Your task to perform on an android device: allow notifications from all sites in the chrome app Image 0: 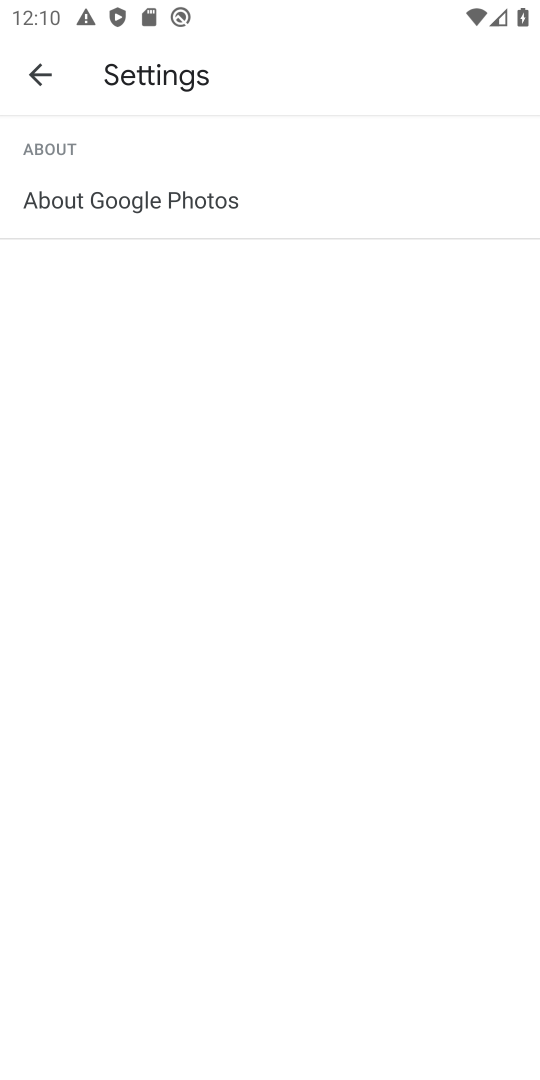
Step 0: press home button
Your task to perform on an android device: allow notifications from all sites in the chrome app Image 1: 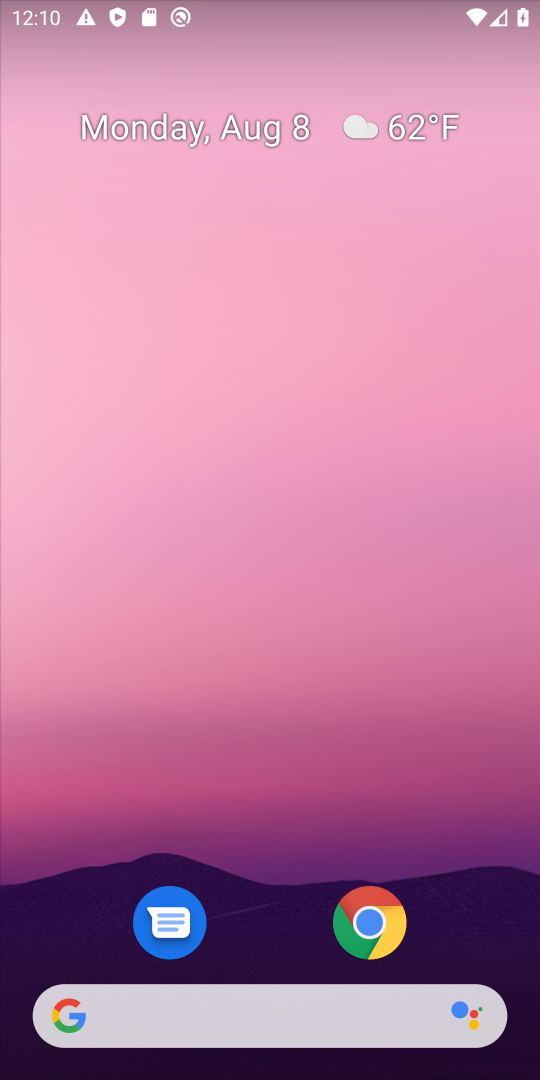
Step 1: click (383, 941)
Your task to perform on an android device: allow notifications from all sites in the chrome app Image 2: 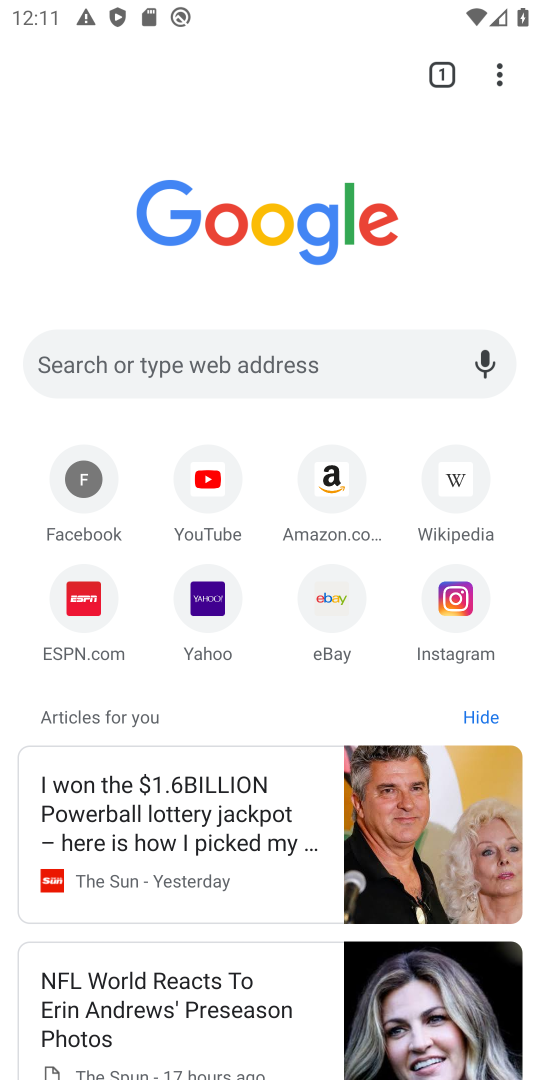
Step 2: click (496, 72)
Your task to perform on an android device: allow notifications from all sites in the chrome app Image 3: 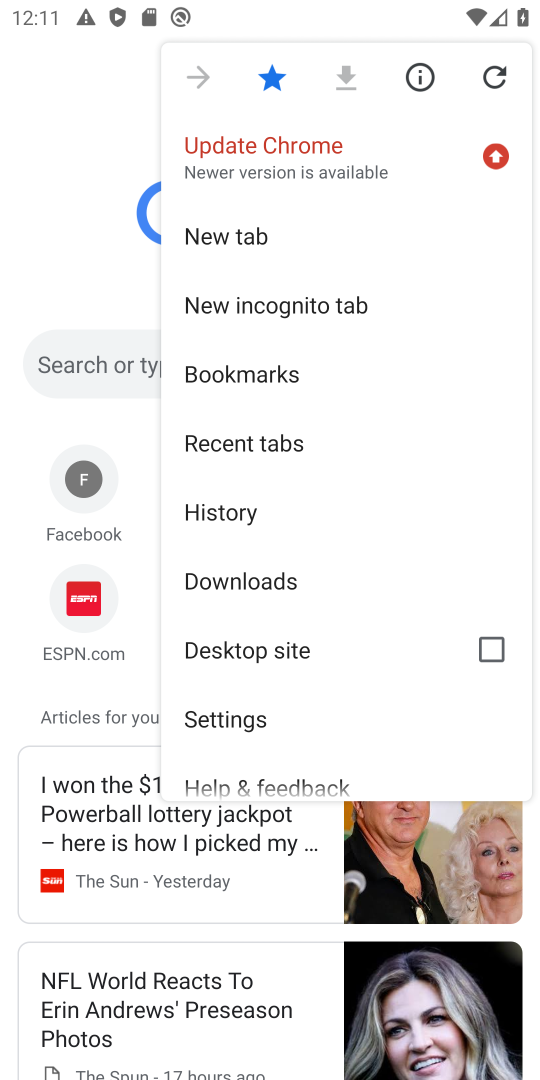
Step 3: click (309, 705)
Your task to perform on an android device: allow notifications from all sites in the chrome app Image 4: 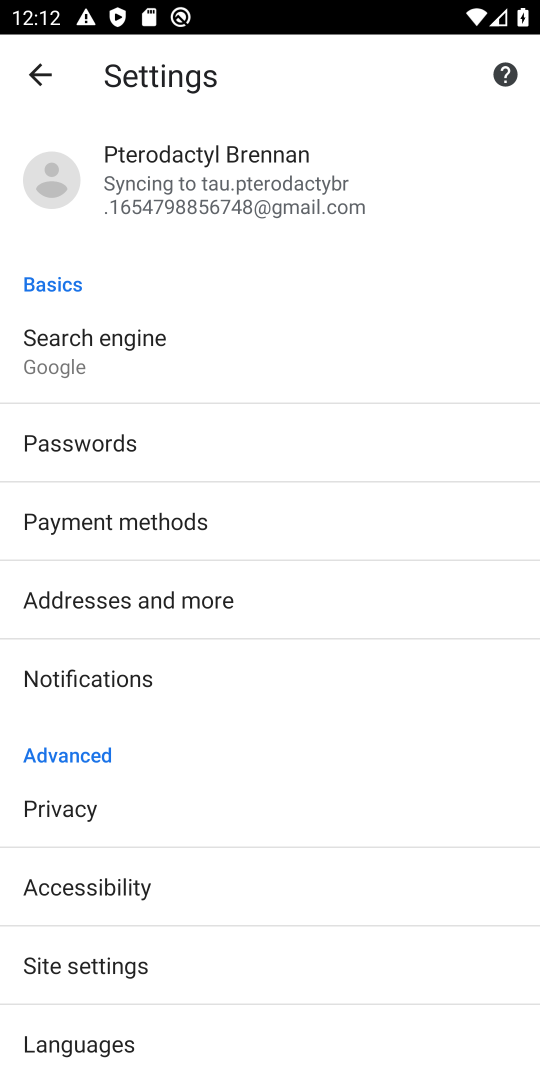
Step 4: click (142, 970)
Your task to perform on an android device: allow notifications from all sites in the chrome app Image 5: 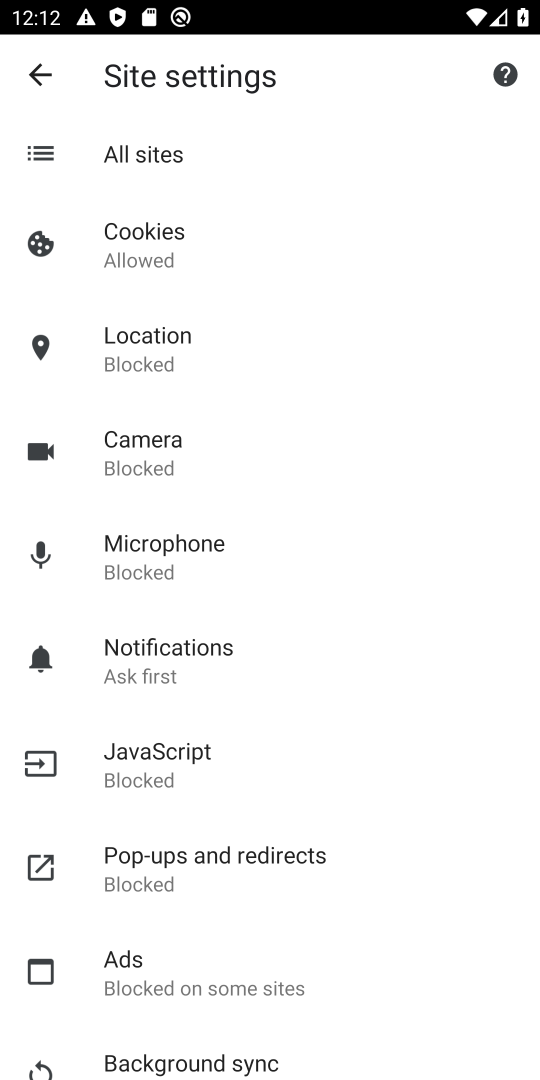
Step 5: click (230, 146)
Your task to perform on an android device: allow notifications from all sites in the chrome app Image 6: 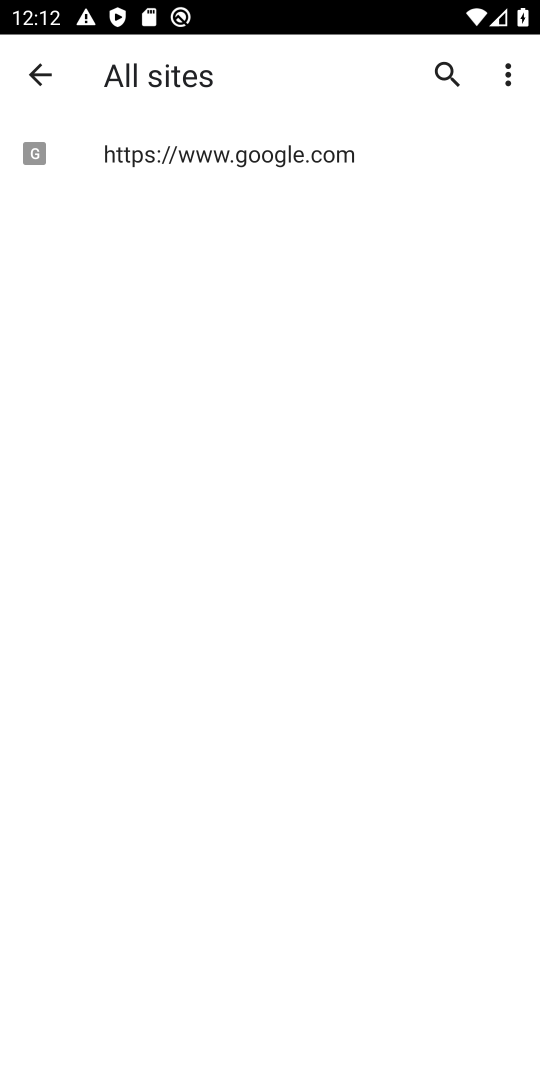
Step 6: click (376, 146)
Your task to perform on an android device: allow notifications from all sites in the chrome app Image 7: 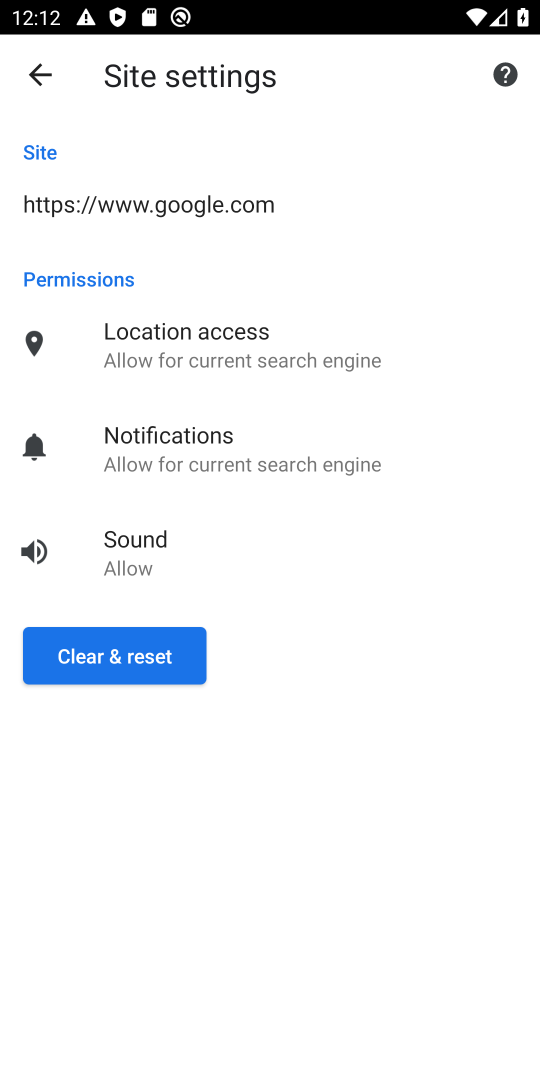
Step 7: task complete